Your task to perform on an android device: Go to network settings Image 0: 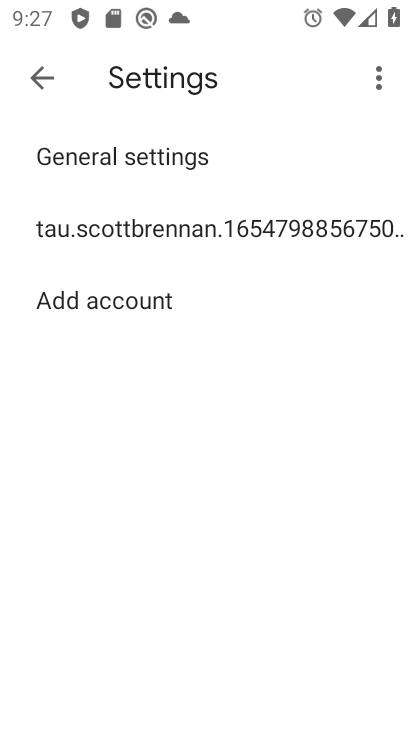
Step 0: press home button
Your task to perform on an android device: Go to network settings Image 1: 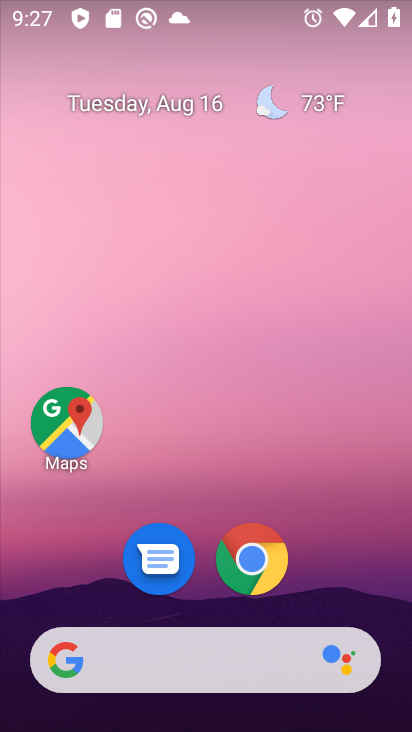
Step 1: drag from (197, 668) to (319, 123)
Your task to perform on an android device: Go to network settings Image 2: 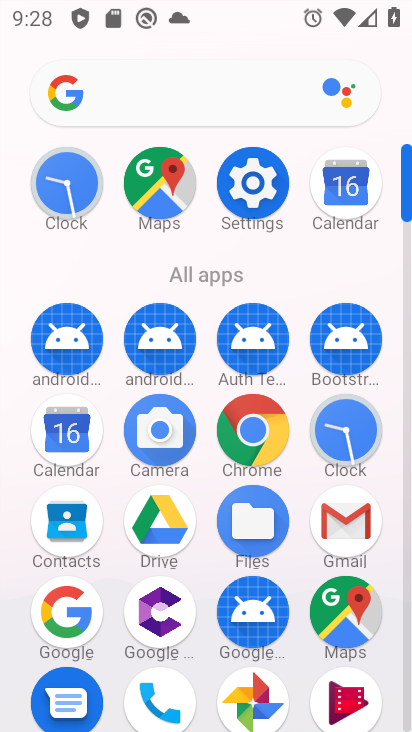
Step 2: click (253, 183)
Your task to perform on an android device: Go to network settings Image 3: 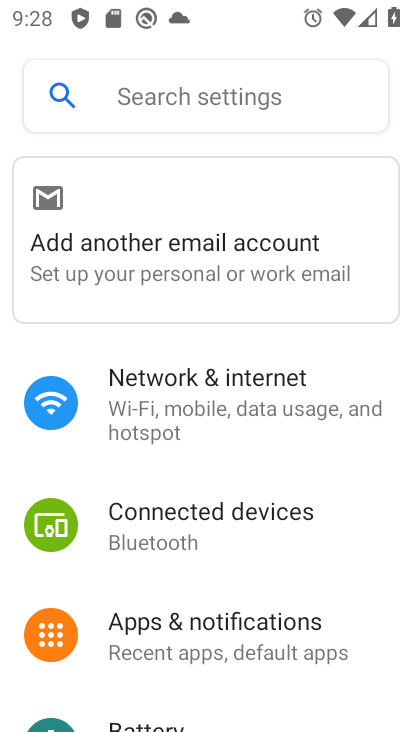
Step 3: click (229, 388)
Your task to perform on an android device: Go to network settings Image 4: 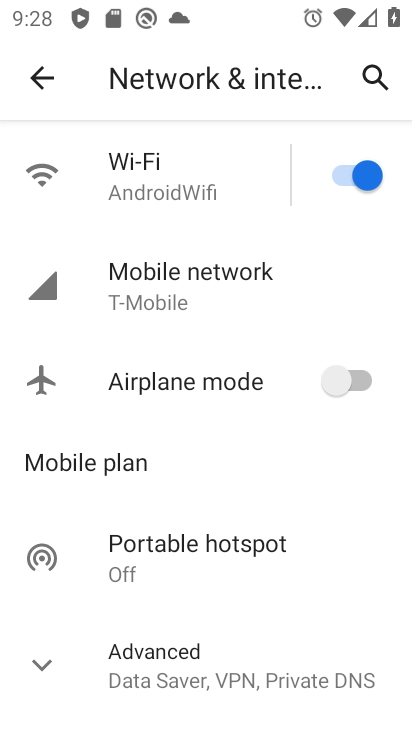
Step 4: task complete